Your task to perform on an android device: delete the emails in spam in the gmail app Image 0: 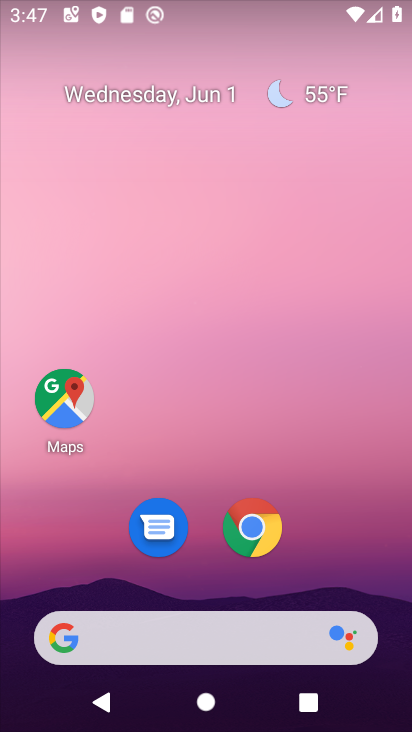
Step 0: press home button
Your task to perform on an android device: delete the emails in spam in the gmail app Image 1: 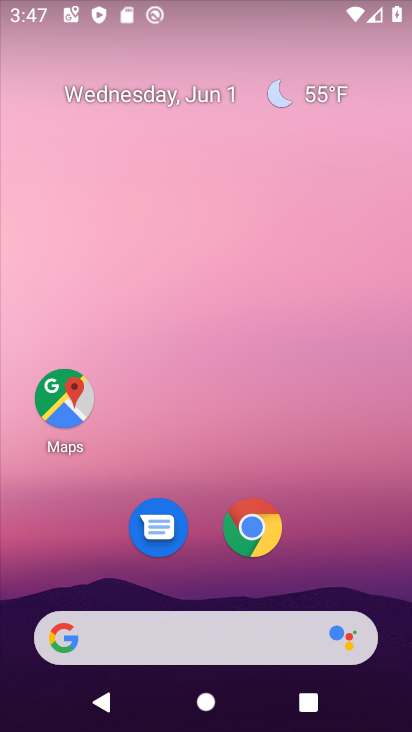
Step 1: drag from (370, 558) to (253, 116)
Your task to perform on an android device: delete the emails in spam in the gmail app Image 2: 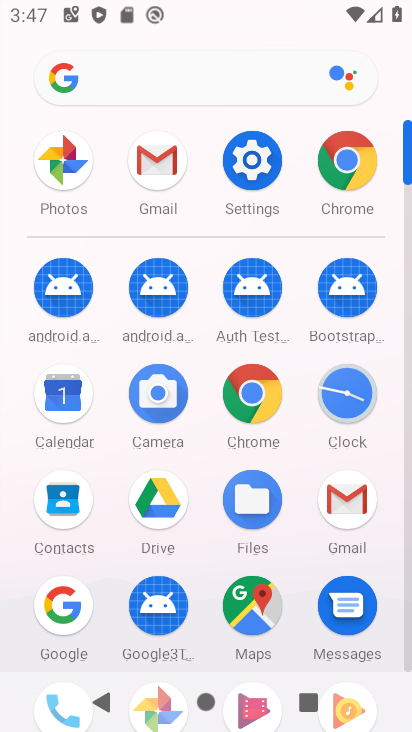
Step 2: click (158, 157)
Your task to perform on an android device: delete the emails in spam in the gmail app Image 3: 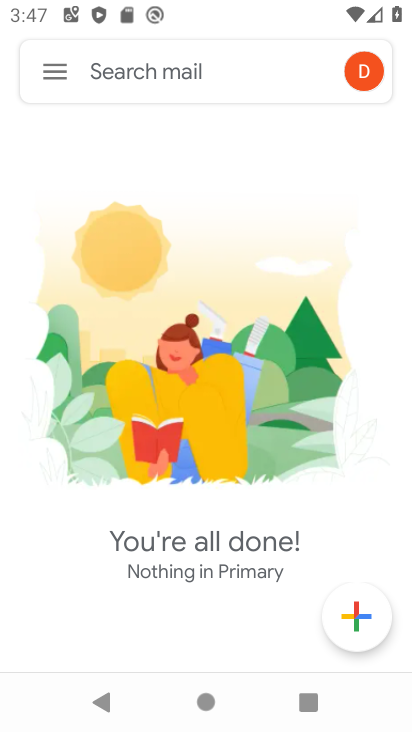
Step 3: click (55, 64)
Your task to perform on an android device: delete the emails in spam in the gmail app Image 4: 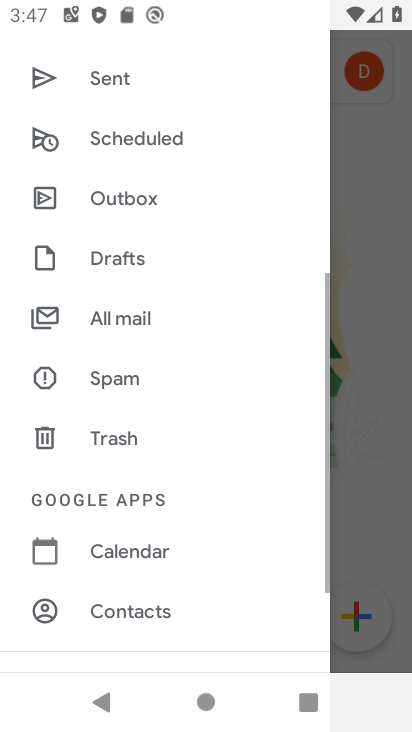
Step 4: task complete